Your task to perform on an android device: Look up the new steph curry shoes Image 0: 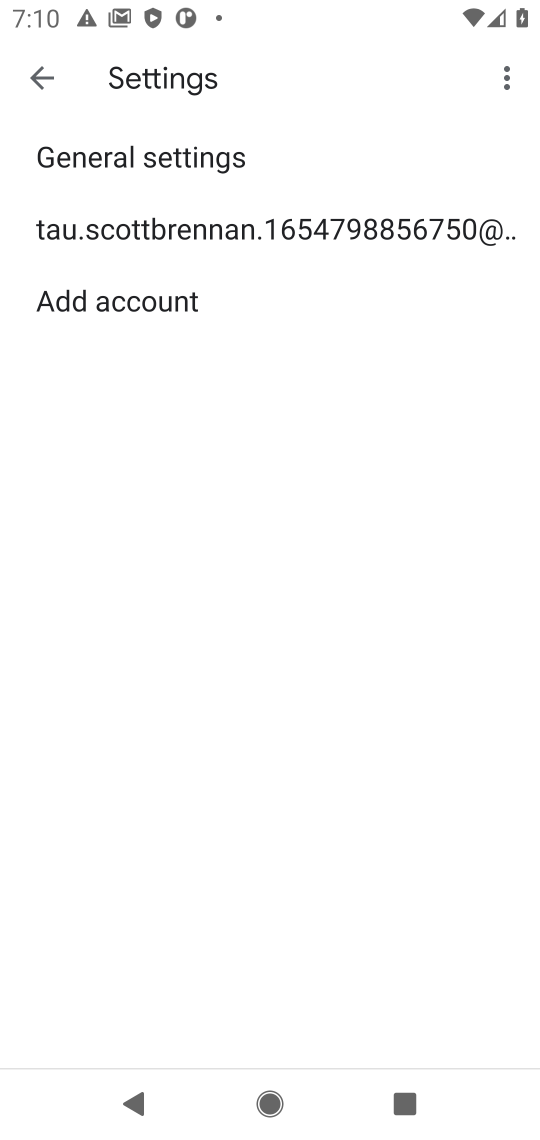
Step 0: press home button
Your task to perform on an android device: Look up the new steph curry shoes Image 1: 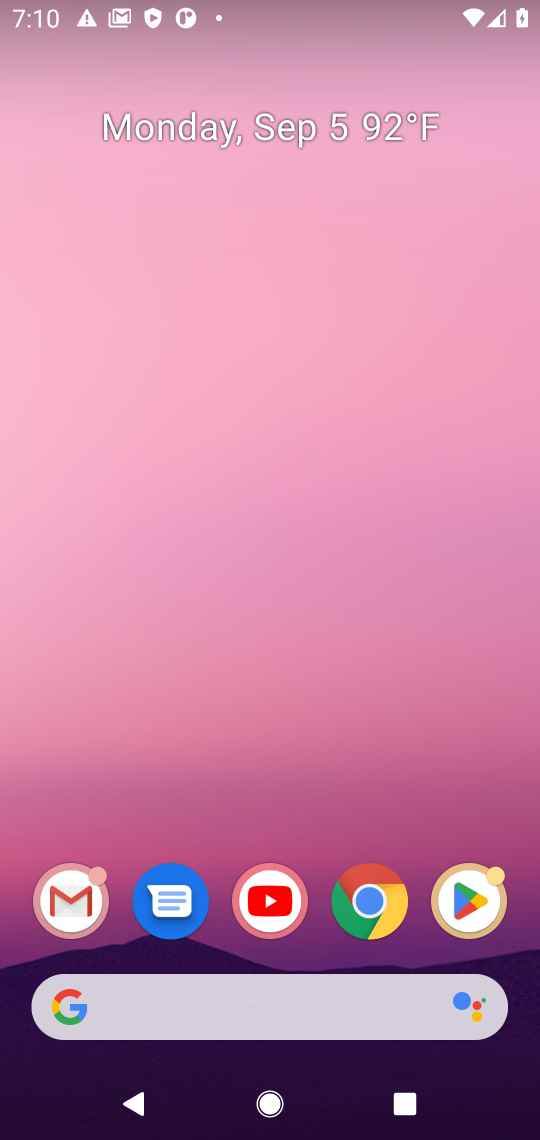
Step 1: click (361, 885)
Your task to perform on an android device: Look up the new steph curry shoes Image 2: 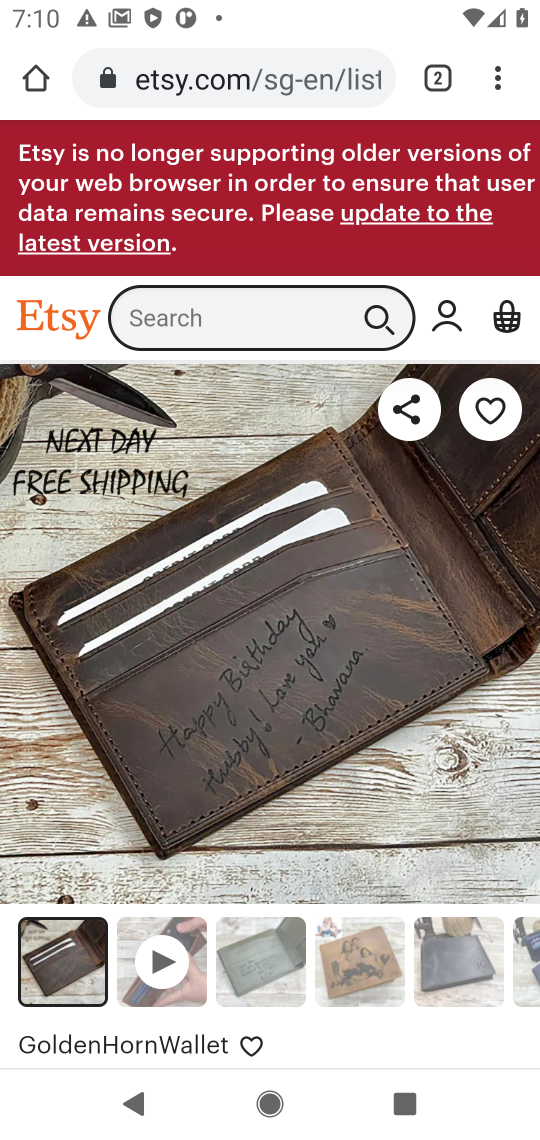
Step 2: press back button
Your task to perform on an android device: Look up the new steph curry shoes Image 3: 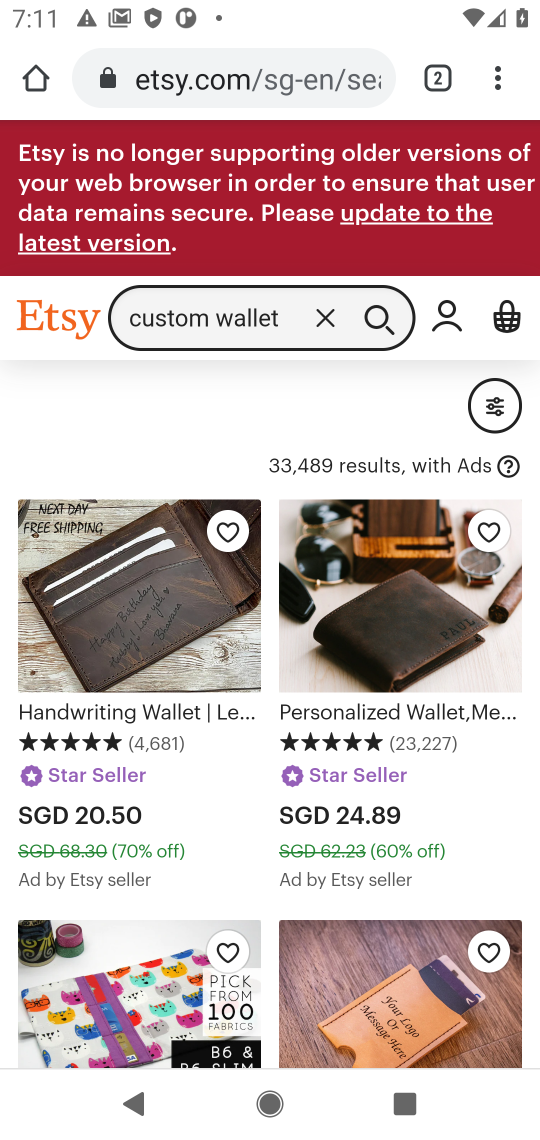
Step 3: press back button
Your task to perform on an android device: Look up the new steph curry shoes Image 4: 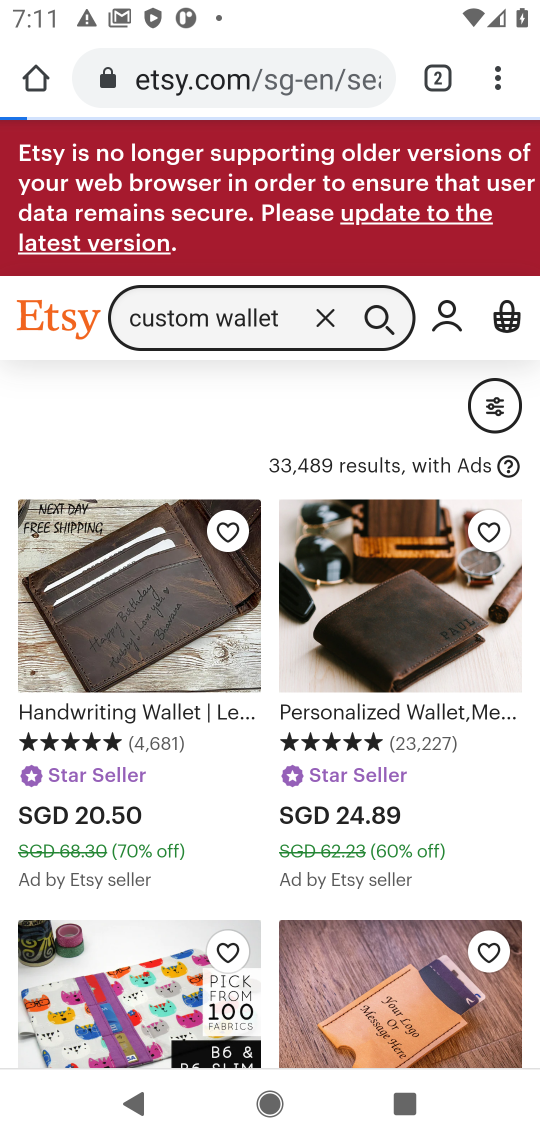
Step 4: press back button
Your task to perform on an android device: Look up the new steph curry shoes Image 5: 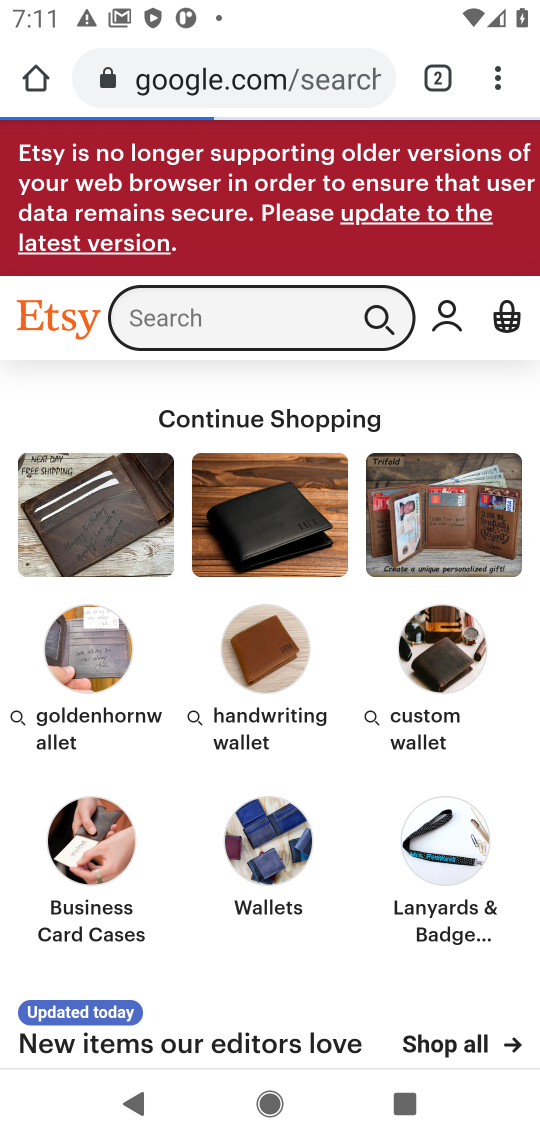
Step 5: press back button
Your task to perform on an android device: Look up the new steph curry shoes Image 6: 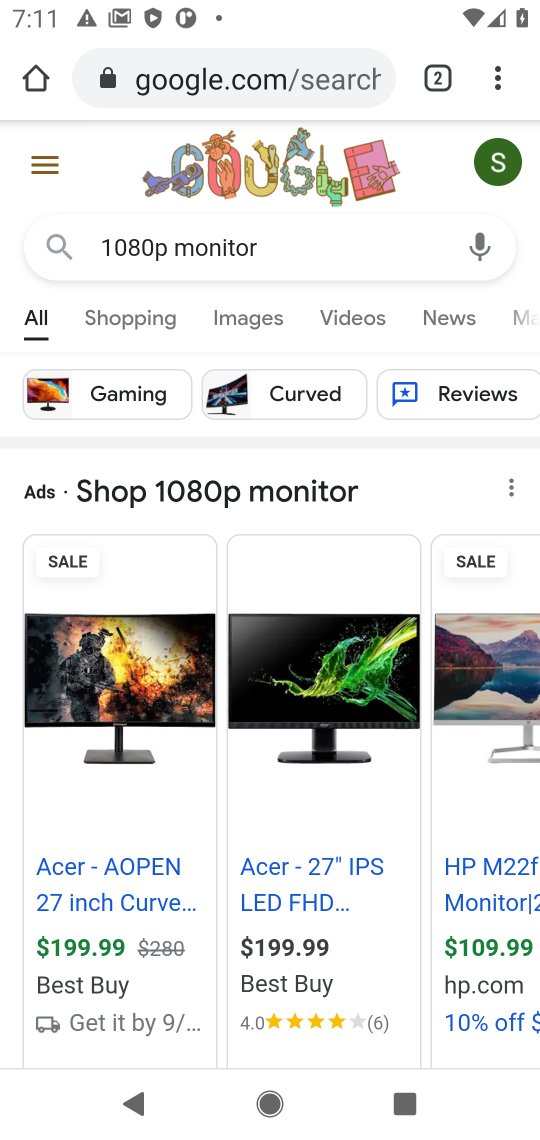
Step 6: click (276, 250)
Your task to perform on an android device: Look up the new steph curry shoes Image 7: 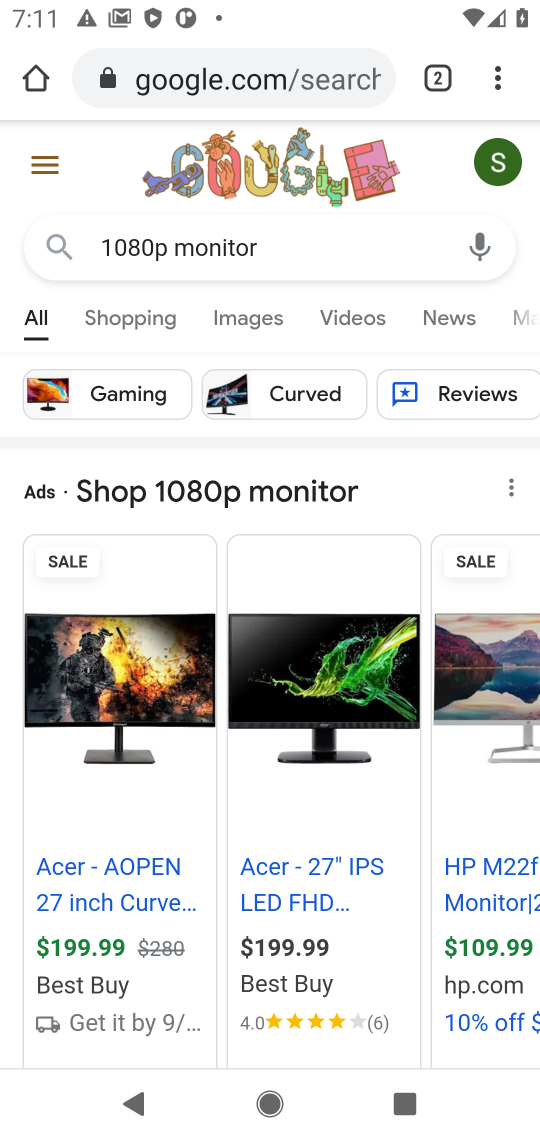
Step 7: click (276, 250)
Your task to perform on an android device: Look up the new steph curry shoes Image 8: 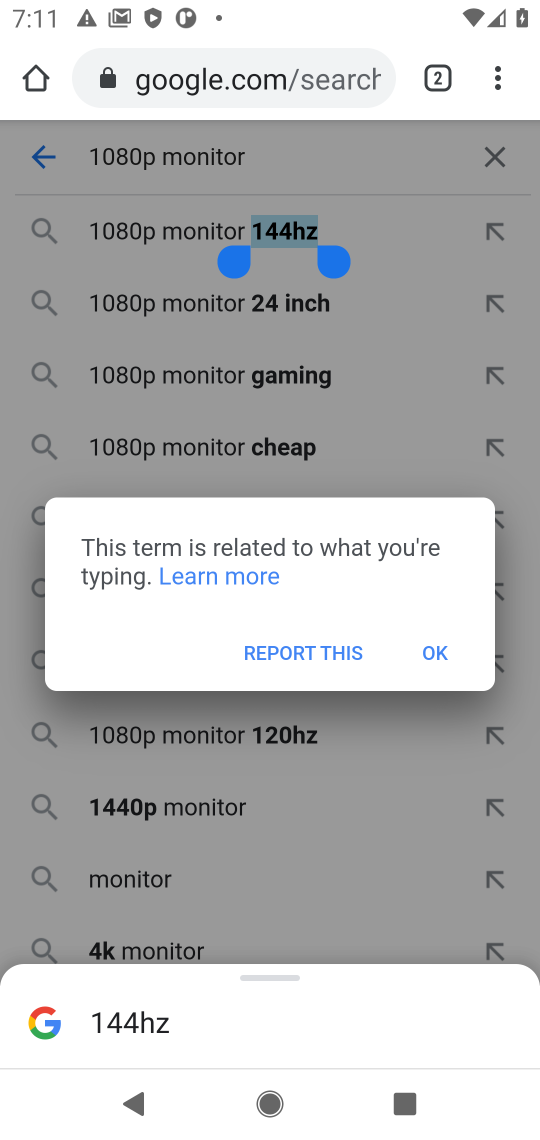
Step 8: click (421, 661)
Your task to perform on an android device: Look up the new steph curry shoes Image 9: 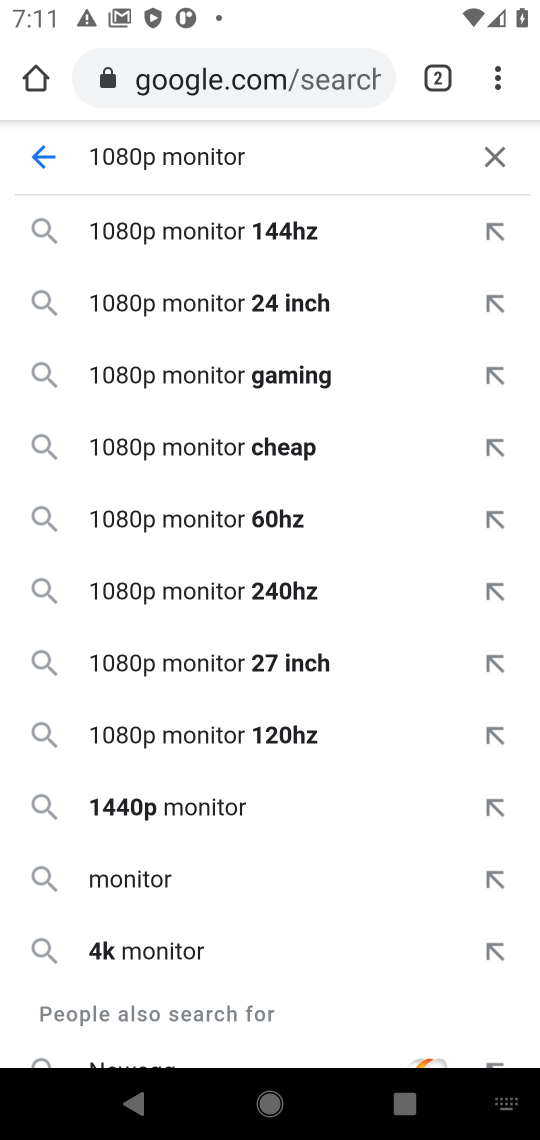
Step 9: click (505, 153)
Your task to perform on an android device: Look up the new steph curry shoes Image 10: 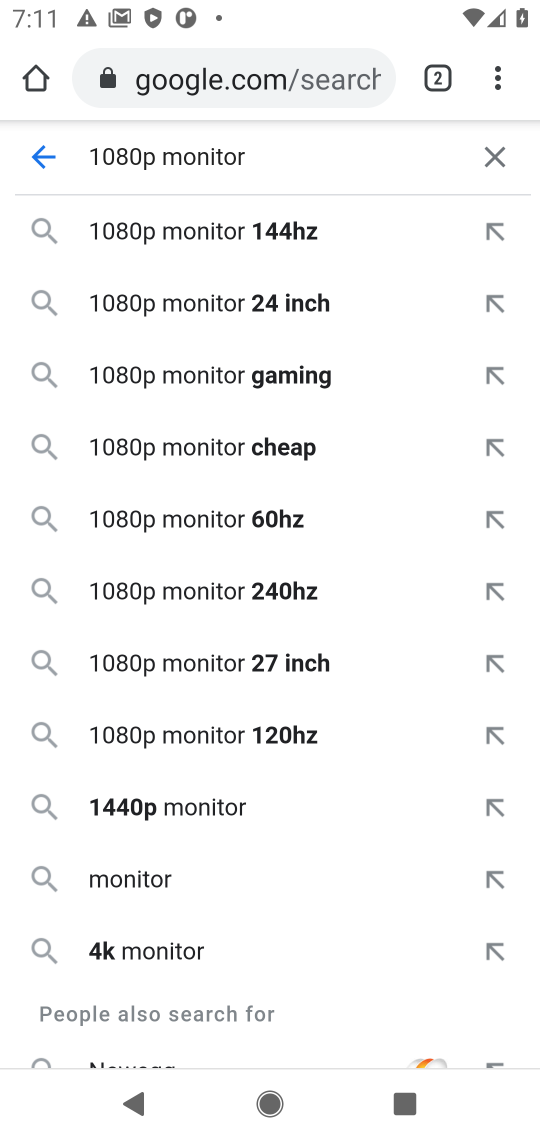
Step 10: type "new steph curry shose"
Your task to perform on an android device: Look up the new steph curry shoes Image 11: 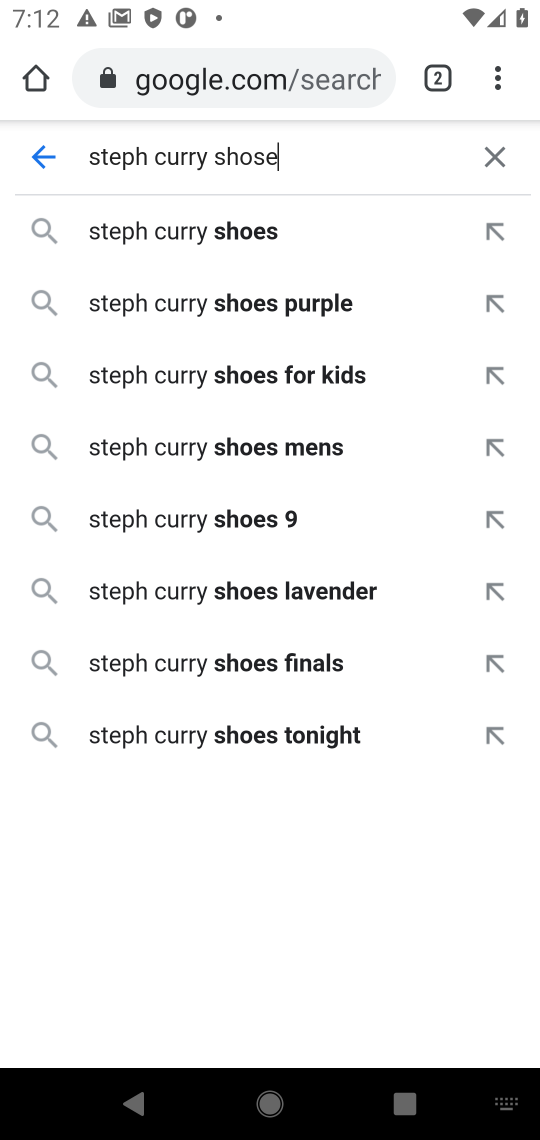
Step 11: click (201, 223)
Your task to perform on an android device: Look up the new steph curry shoes Image 12: 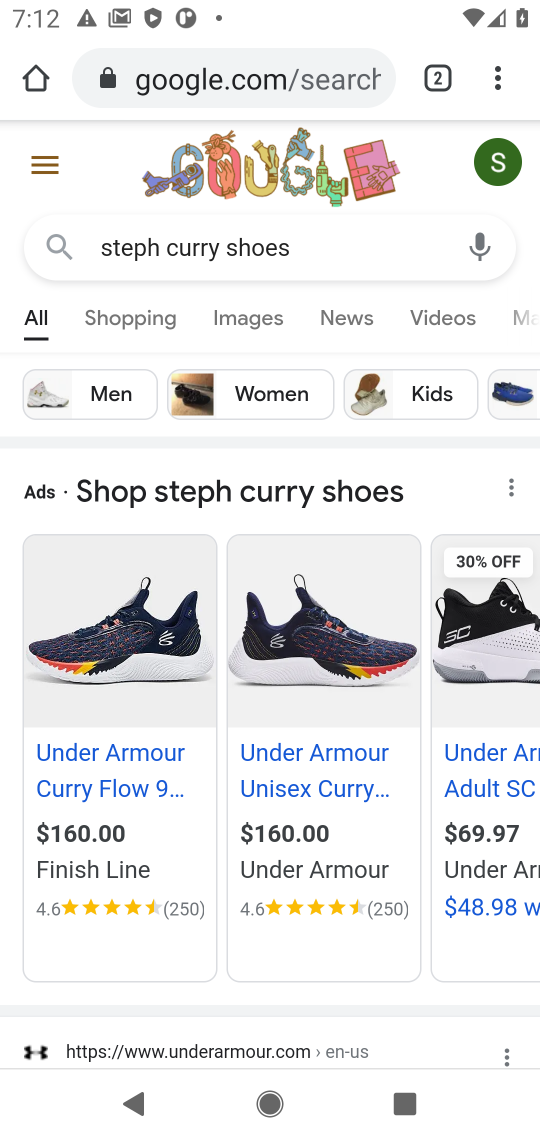
Step 12: click (127, 765)
Your task to perform on an android device: Look up the new steph curry shoes Image 13: 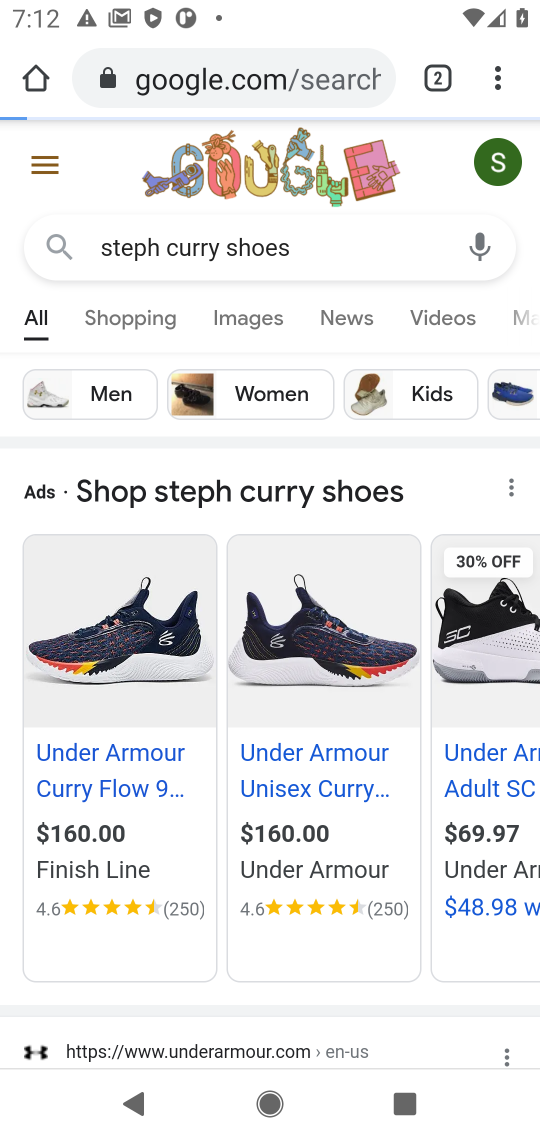
Step 13: click (261, 764)
Your task to perform on an android device: Look up the new steph curry shoes Image 14: 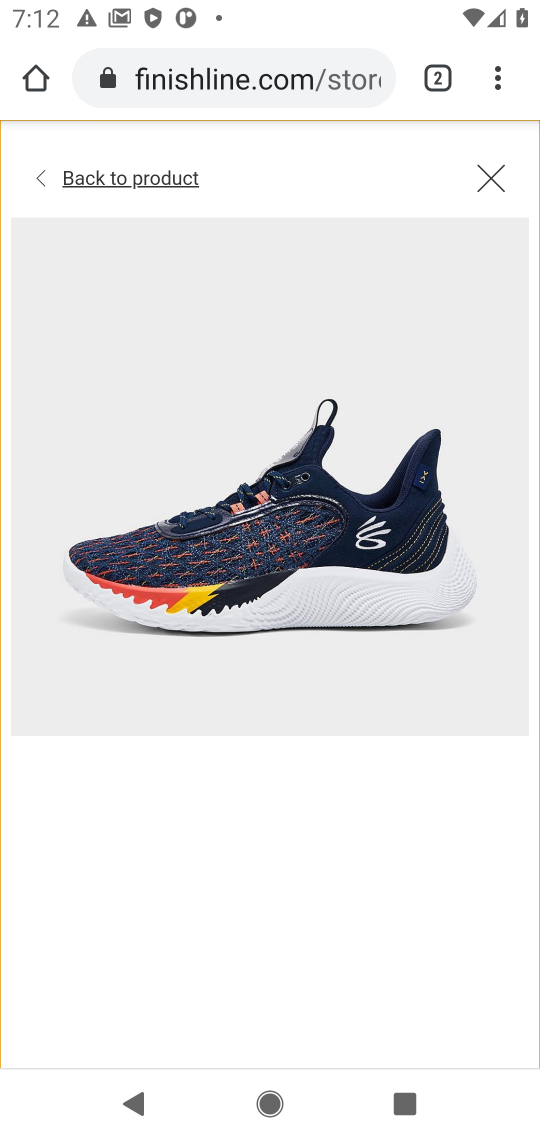
Step 14: task complete